Your task to perform on an android device: turn on notifications settings in the gmail app Image 0: 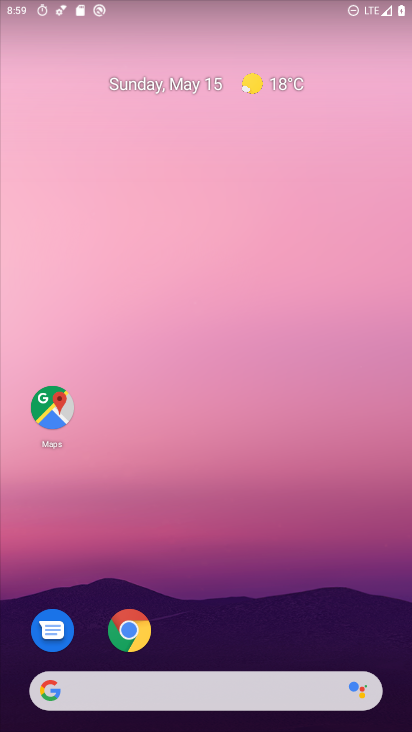
Step 0: drag from (191, 642) to (230, 203)
Your task to perform on an android device: turn on notifications settings in the gmail app Image 1: 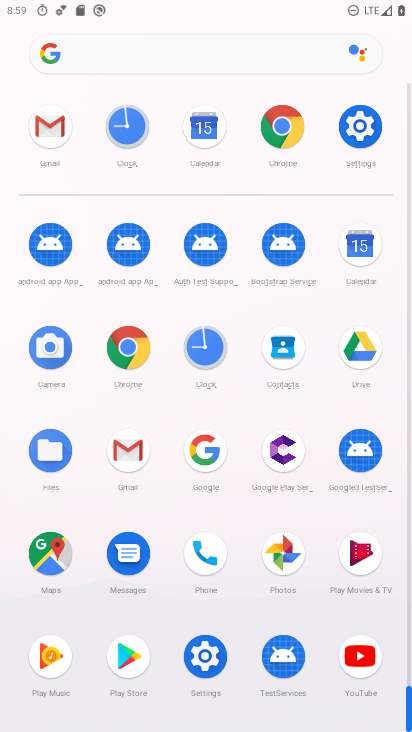
Step 1: click (125, 456)
Your task to perform on an android device: turn on notifications settings in the gmail app Image 2: 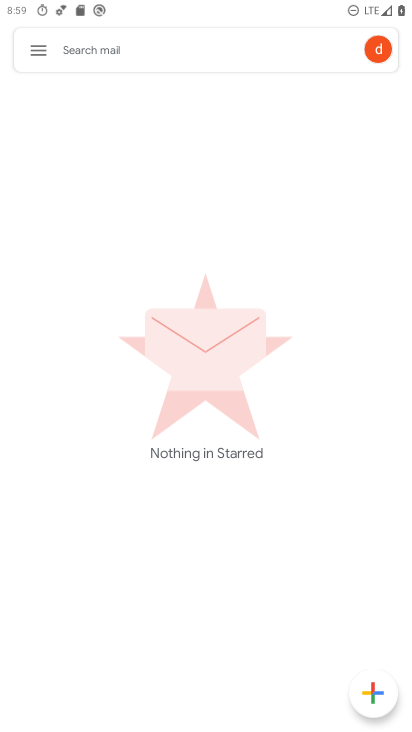
Step 2: click (32, 31)
Your task to perform on an android device: turn on notifications settings in the gmail app Image 3: 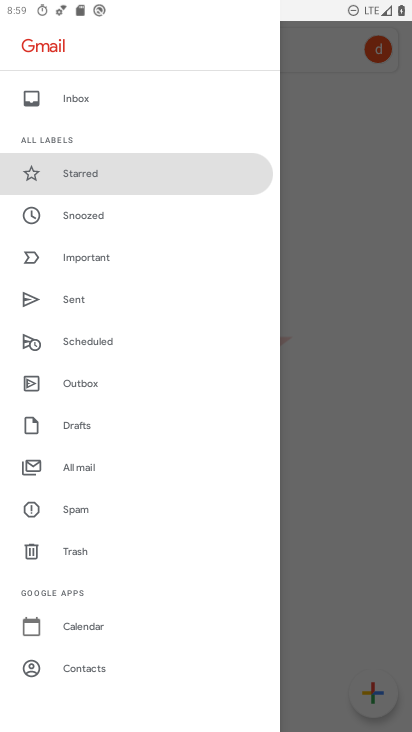
Step 3: drag from (114, 624) to (224, 182)
Your task to perform on an android device: turn on notifications settings in the gmail app Image 4: 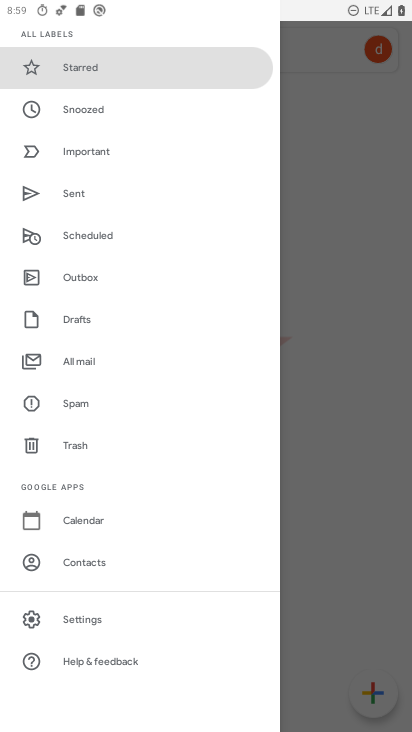
Step 4: click (101, 624)
Your task to perform on an android device: turn on notifications settings in the gmail app Image 5: 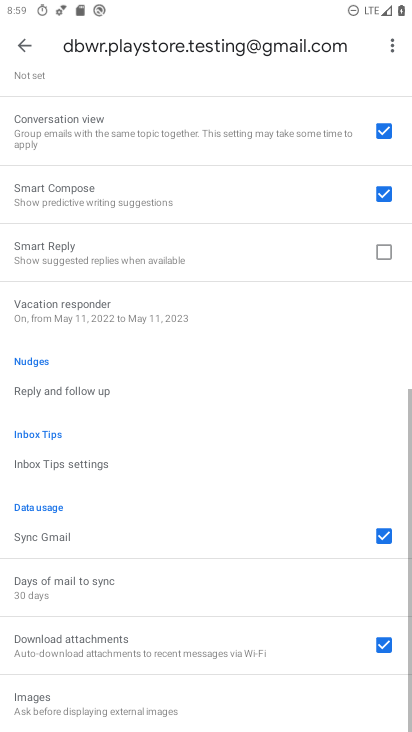
Step 5: drag from (171, 572) to (240, 179)
Your task to perform on an android device: turn on notifications settings in the gmail app Image 6: 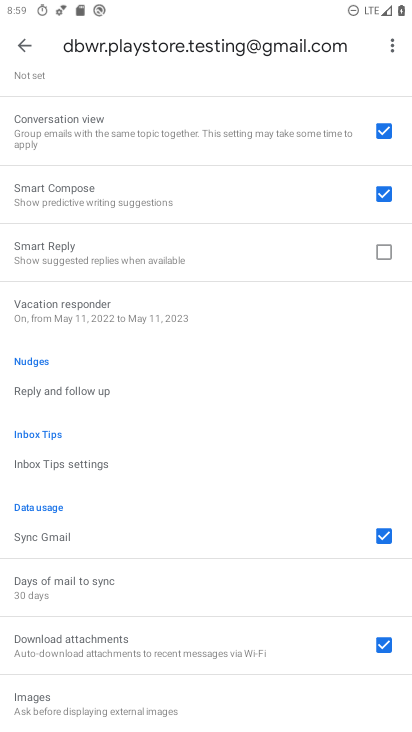
Step 6: drag from (210, 229) to (227, 554)
Your task to perform on an android device: turn on notifications settings in the gmail app Image 7: 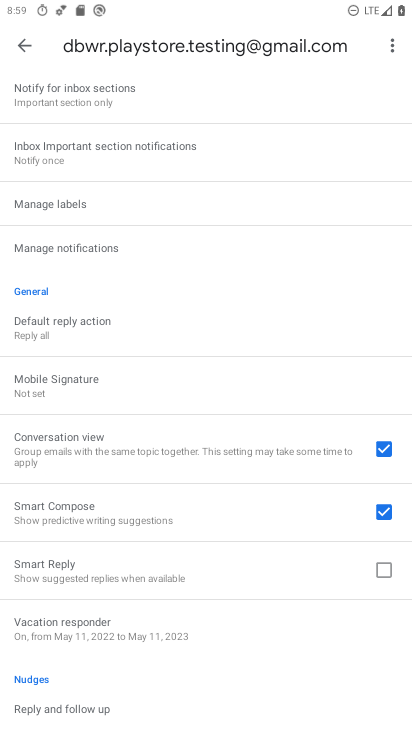
Step 7: click (125, 245)
Your task to perform on an android device: turn on notifications settings in the gmail app Image 8: 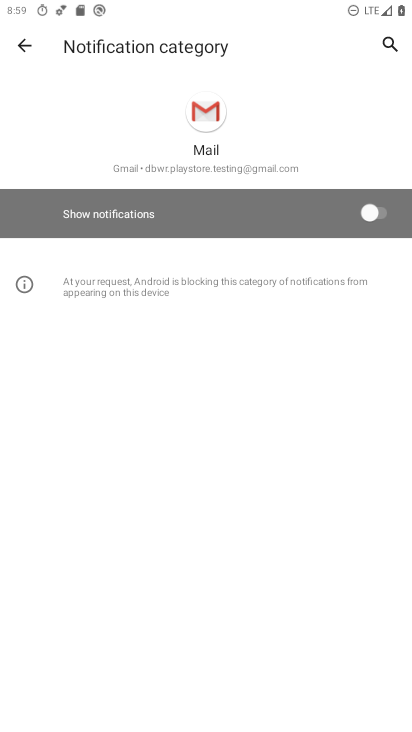
Step 8: click (351, 202)
Your task to perform on an android device: turn on notifications settings in the gmail app Image 9: 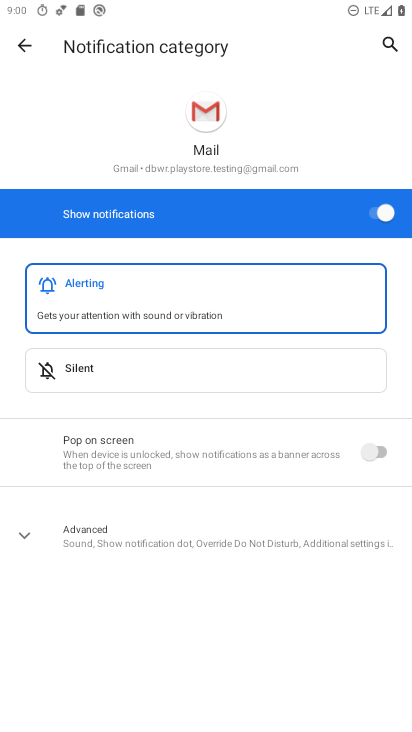
Step 9: task complete